Your task to perform on an android device: open a bookmark in the chrome app Image 0: 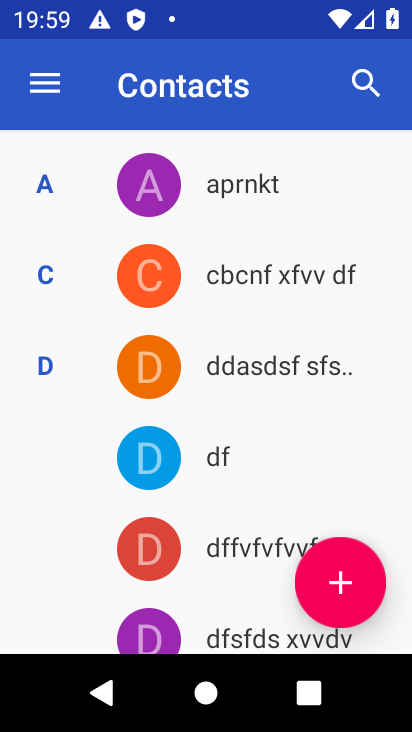
Step 0: press home button
Your task to perform on an android device: open a bookmark in the chrome app Image 1: 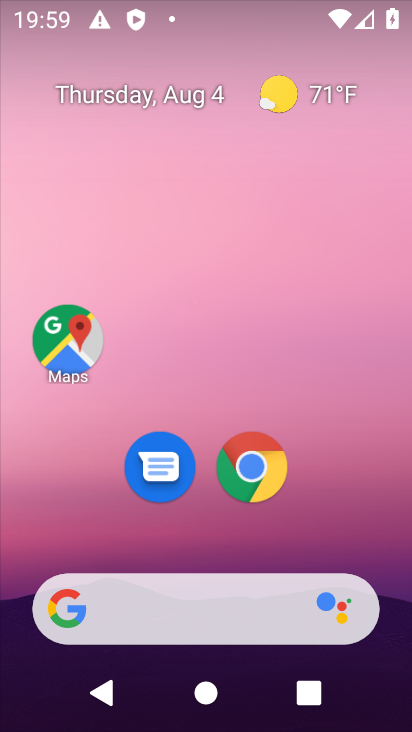
Step 1: drag from (234, 518) to (264, 5)
Your task to perform on an android device: open a bookmark in the chrome app Image 2: 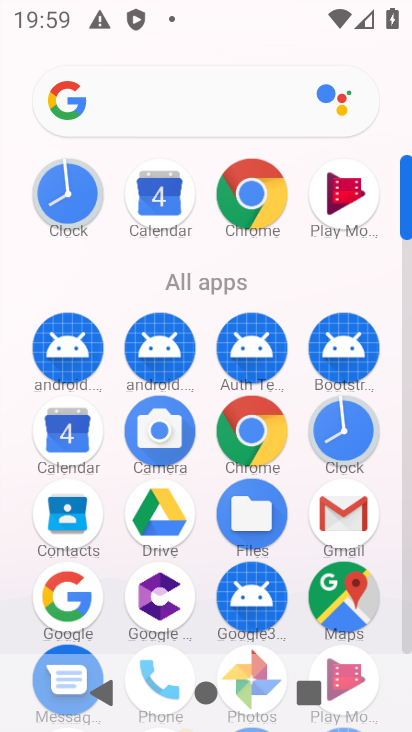
Step 2: click (250, 422)
Your task to perform on an android device: open a bookmark in the chrome app Image 3: 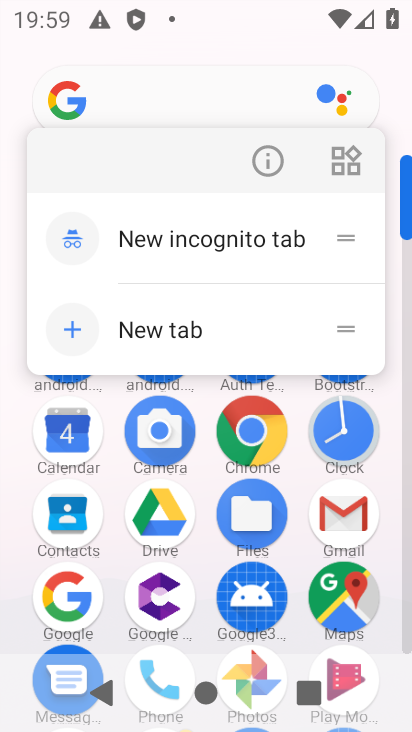
Step 3: click (250, 422)
Your task to perform on an android device: open a bookmark in the chrome app Image 4: 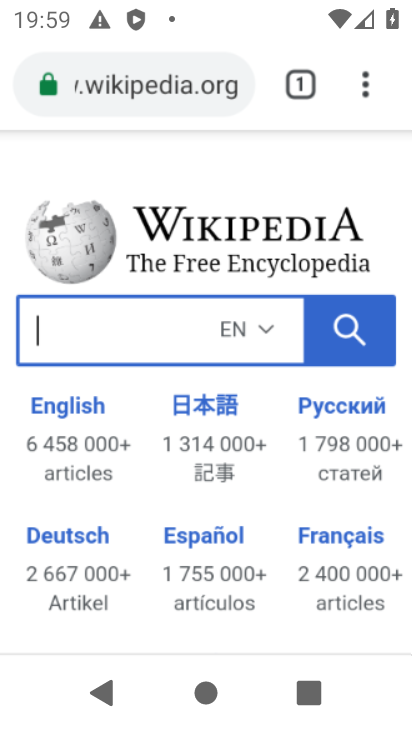
Step 4: task complete